Your task to perform on an android device: Show me productivity apps on the Play Store Image 0: 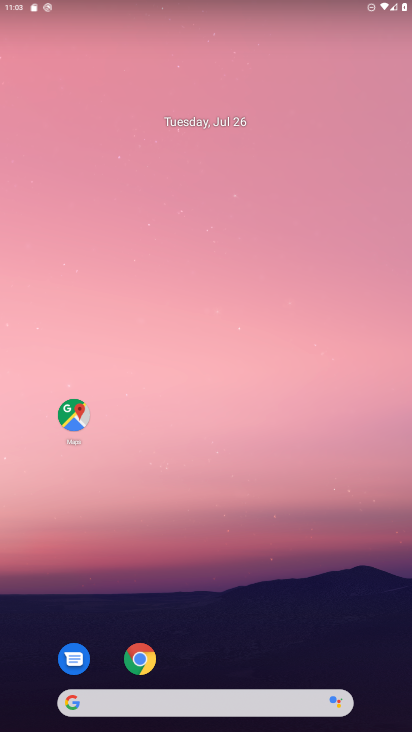
Step 0: drag from (402, 723) to (366, 120)
Your task to perform on an android device: Show me productivity apps on the Play Store Image 1: 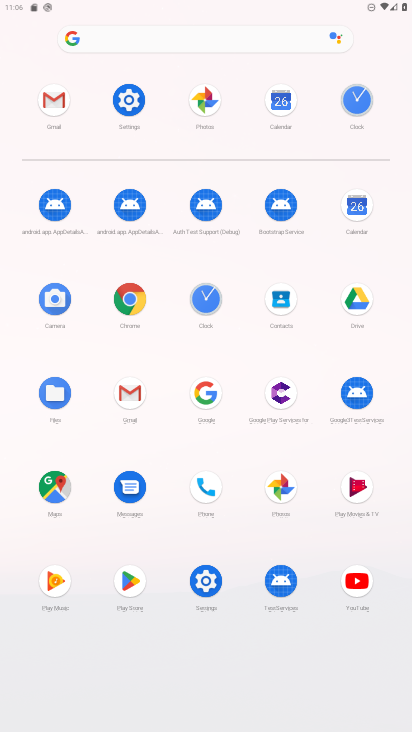
Step 1: click (124, 585)
Your task to perform on an android device: Show me productivity apps on the Play Store Image 2: 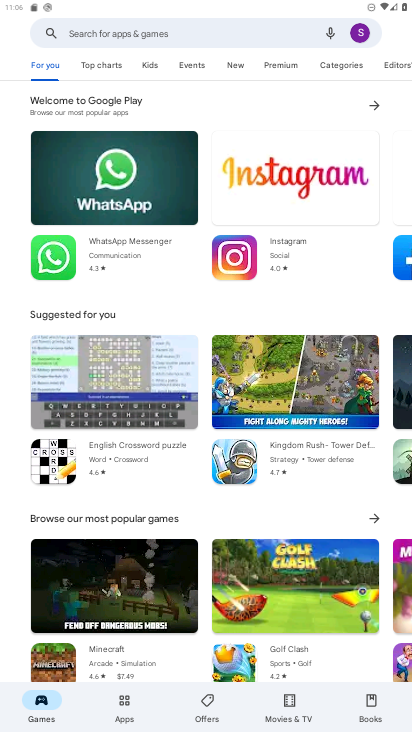
Step 2: click (180, 31)
Your task to perform on an android device: Show me productivity apps on the Play Store Image 3: 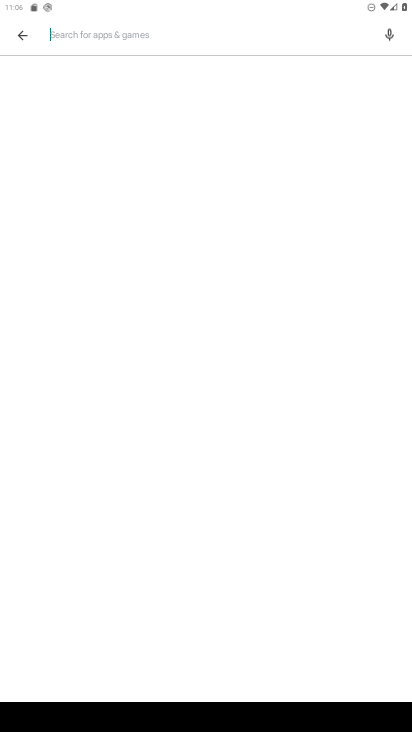
Step 3: task complete